Your task to perform on an android device: Open Android settings Image 0: 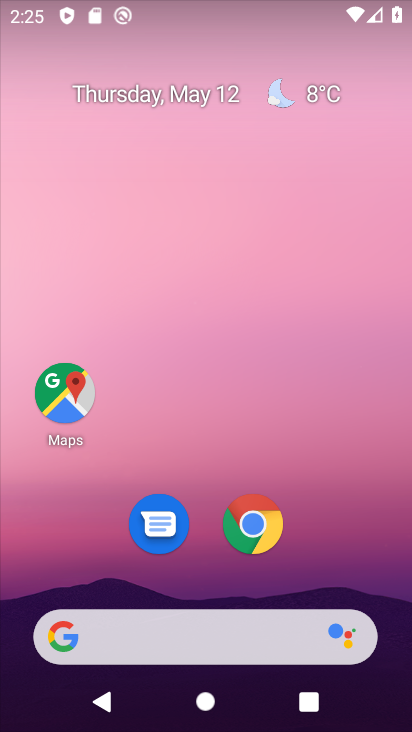
Step 0: drag from (209, 428) to (212, 24)
Your task to perform on an android device: Open Android settings Image 1: 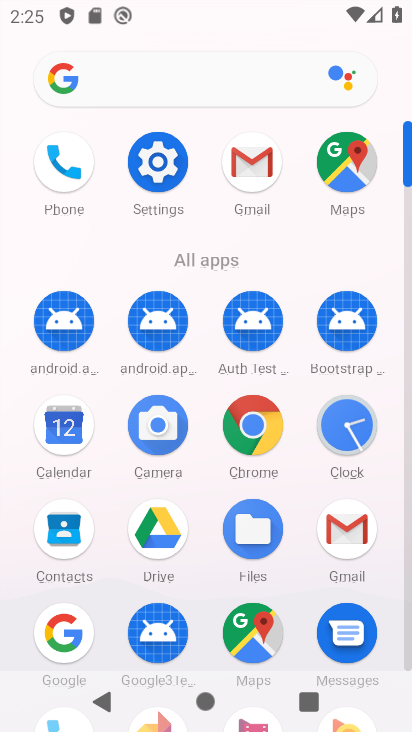
Step 1: click (161, 172)
Your task to perform on an android device: Open Android settings Image 2: 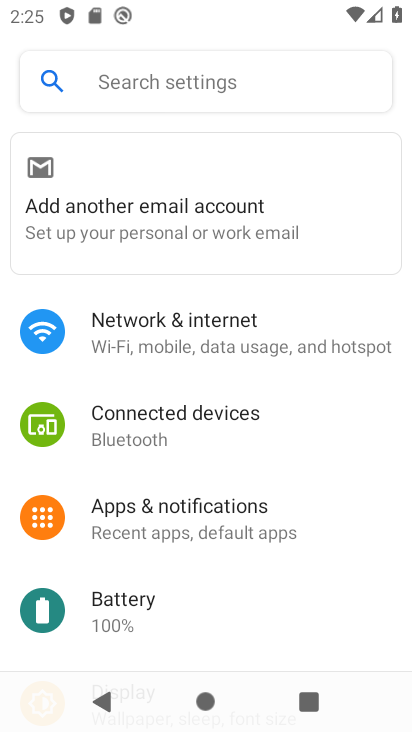
Step 2: drag from (234, 460) to (262, 146)
Your task to perform on an android device: Open Android settings Image 3: 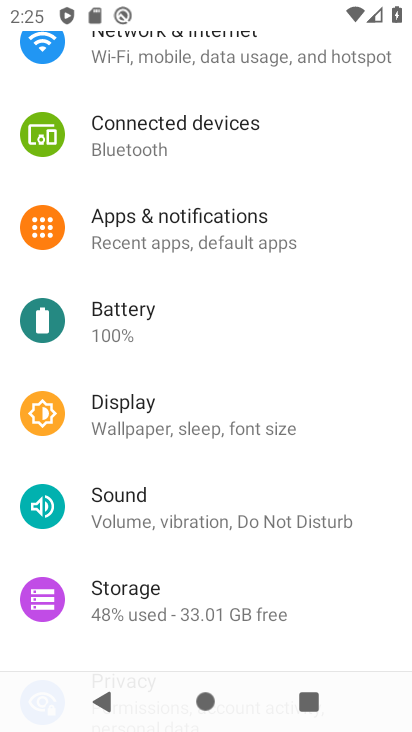
Step 3: drag from (198, 488) to (232, 68)
Your task to perform on an android device: Open Android settings Image 4: 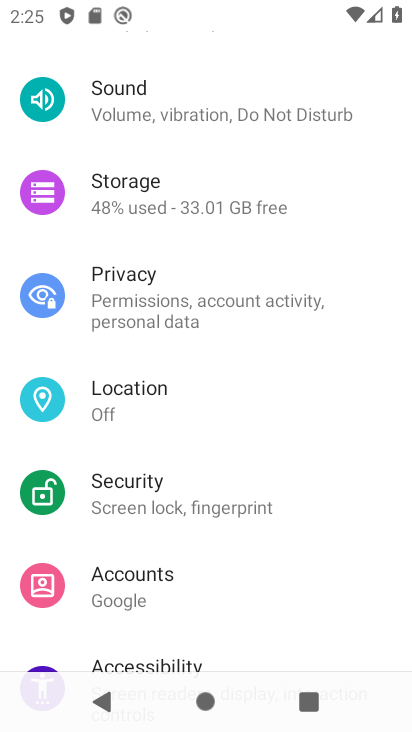
Step 4: drag from (239, 574) to (269, 114)
Your task to perform on an android device: Open Android settings Image 5: 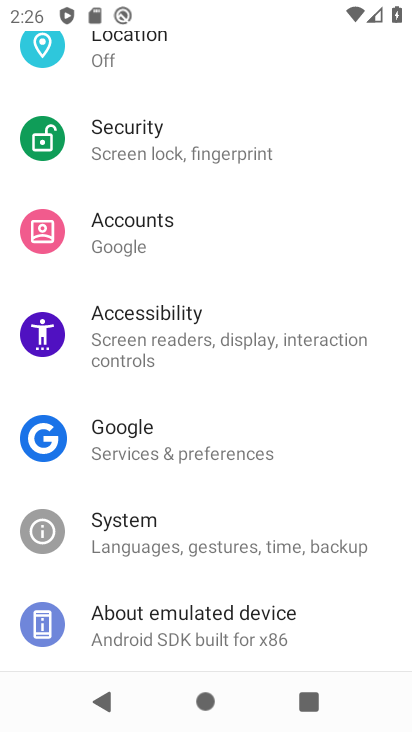
Step 5: drag from (201, 494) to (237, 200)
Your task to perform on an android device: Open Android settings Image 6: 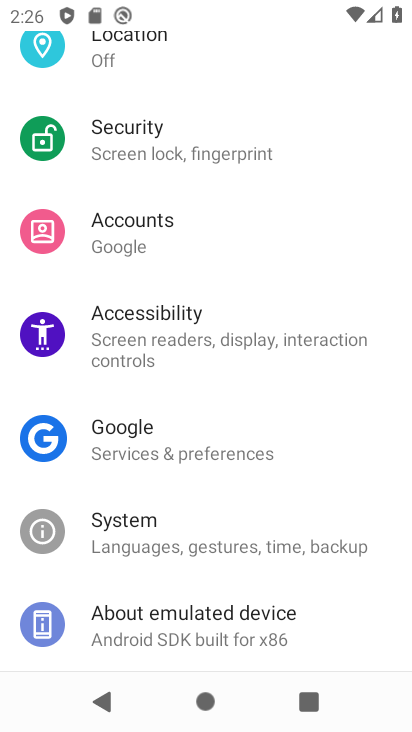
Step 6: click (176, 613)
Your task to perform on an android device: Open Android settings Image 7: 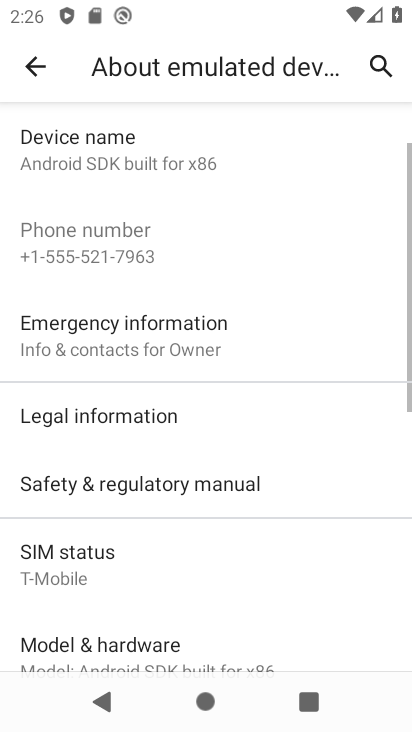
Step 7: task complete